Your task to perform on an android device: find snoozed emails in the gmail app Image 0: 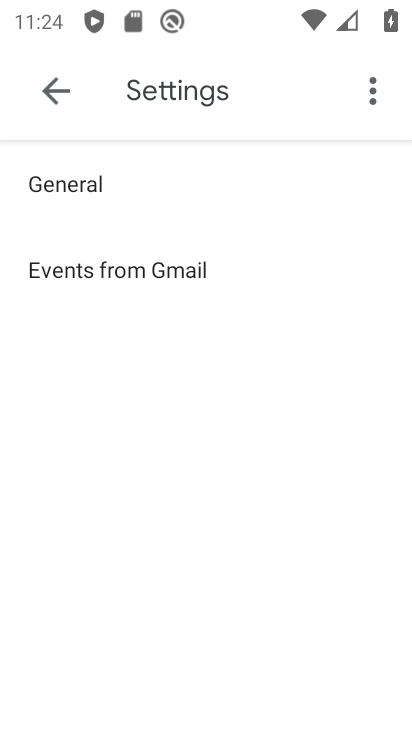
Step 0: press home button
Your task to perform on an android device: find snoozed emails in the gmail app Image 1: 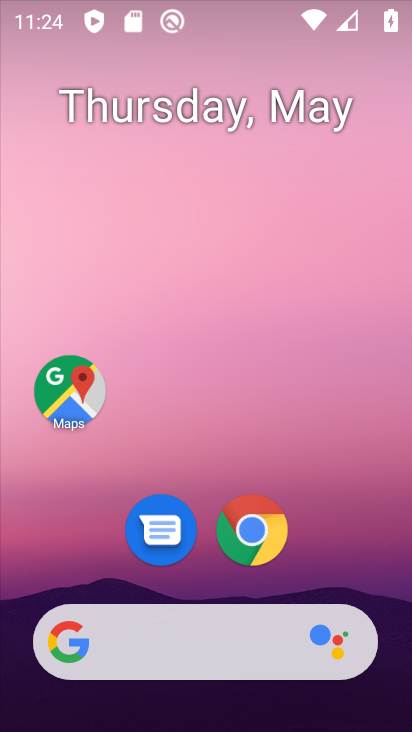
Step 1: drag from (360, 584) to (372, 48)
Your task to perform on an android device: find snoozed emails in the gmail app Image 2: 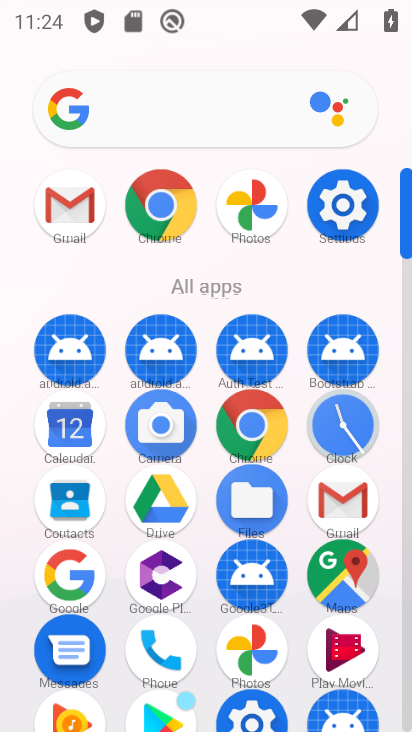
Step 2: click (61, 216)
Your task to perform on an android device: find snoozed emails in the gmail app Image 3: 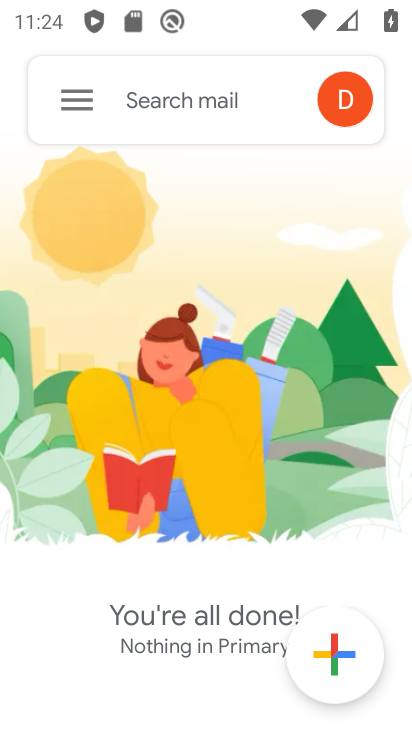
Step 3: click (71, 92)
Your task to perform on an android device: find snoozed emails in the gmail app Image 4: 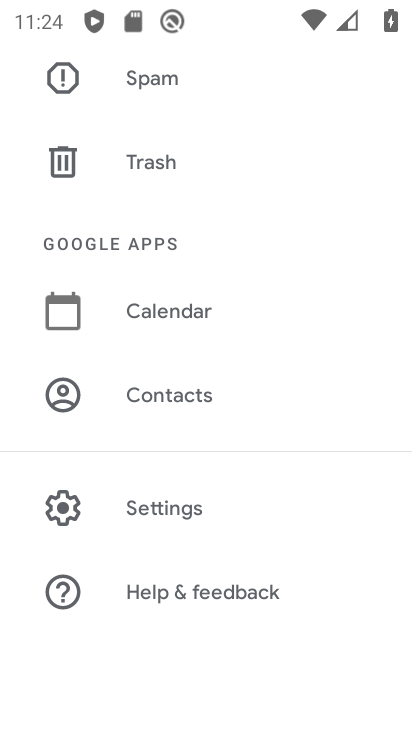
Step 4: drag from (106, 121) to (172, 394)
Your task to perform on an android device: find snoozed emails in the gmail app Image 5: 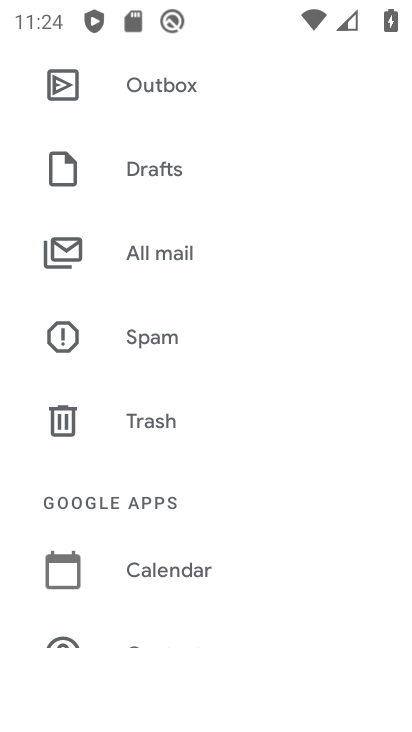
Step 5: drag from (201, 161) to (213, 406)
Your task to perform on an android device: find snoozed emails in the gmail app Image 6: 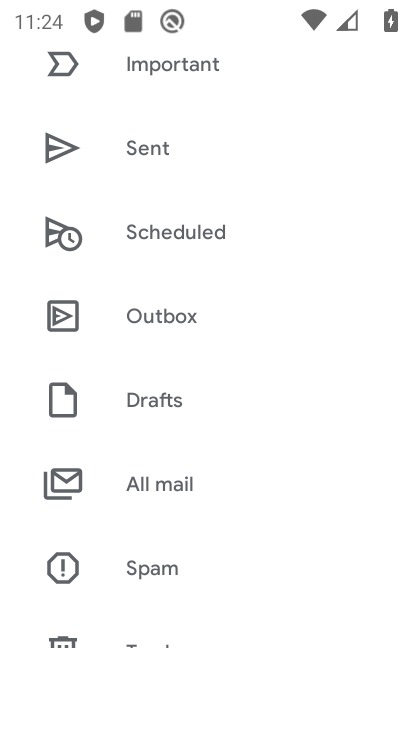
Step 6: drag from (196, 135) to (152, 426)
Your task to perform on an android device: find snoozed emails in the gmail app Image 7: 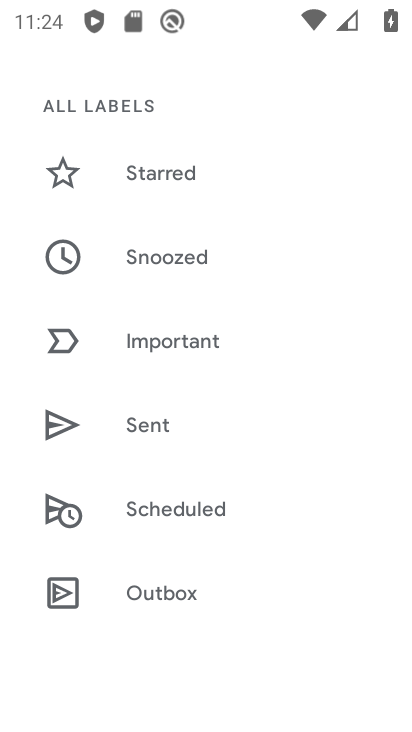
Step 7: click (158, 247)
Your task to perform on an android device: find snoozed emails in the gmail app Image 8: 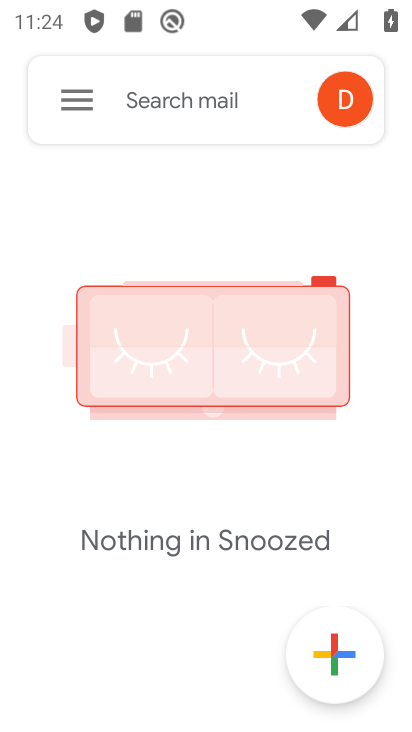
Step 8: task complete